Your task to perform on an android device: turn off wifi Image 0: 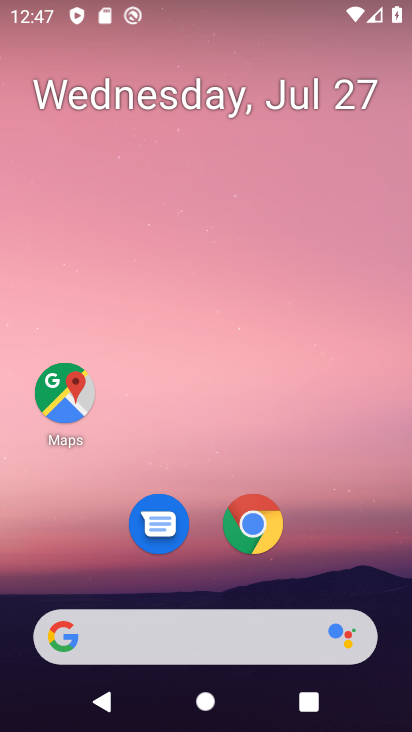
Step 0: drag from (363, 507) to (359, 79)
Your task to perform on an android device: turn off wifi Image 1: 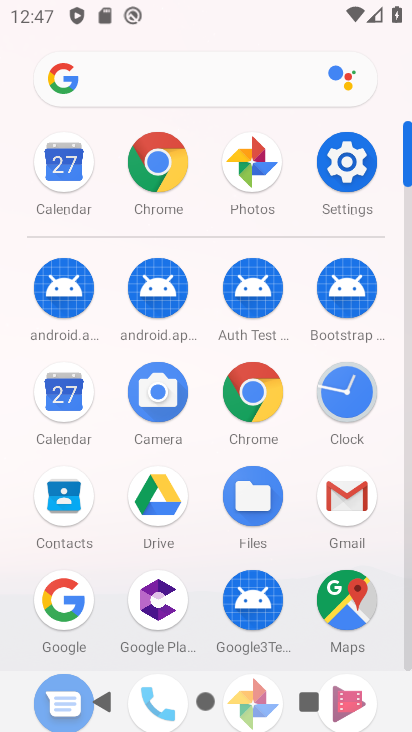
Step 1: click (351, 145)
Your task to perform on an android device: turn off wifi Image 2: 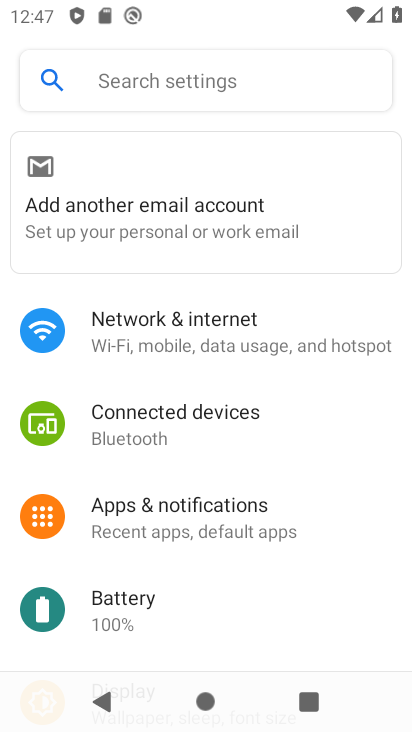
Step 2: click (214, 327)
Your task to perform on an android device: turn off wifi Image 3: 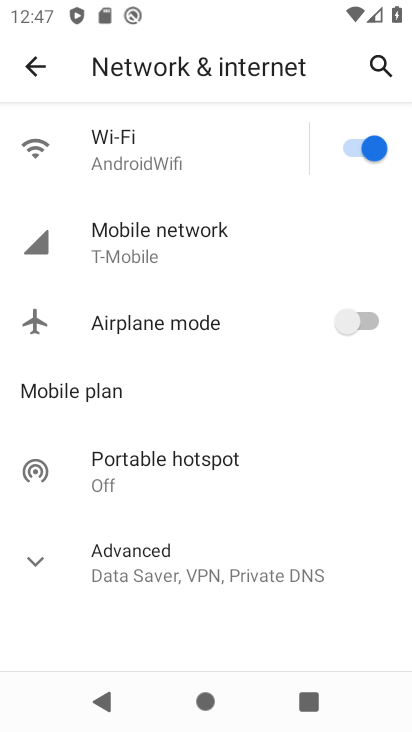
Step 3: task complete